Your task to perform on an android device: turn off notifications settings in the gmail app Image 0: 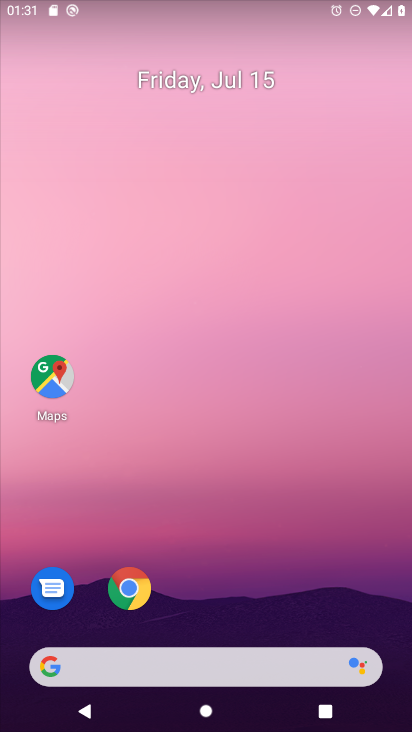
Step 0: drag from (388, 542) to (343, 157)
Your task to perform on an android device: turn off notifications settings in the gmail app Image 1: 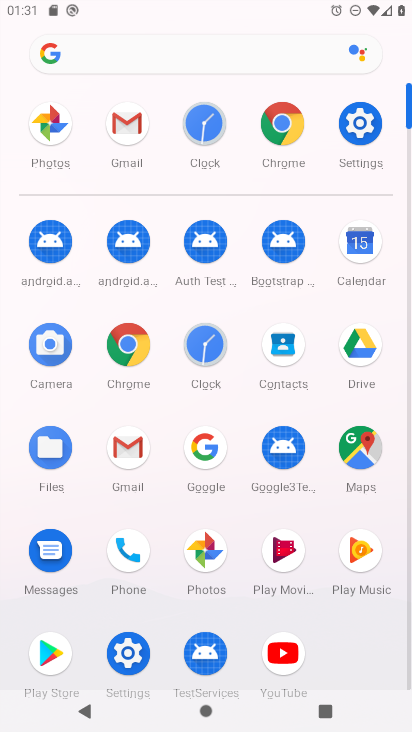
Step 1: click (130, 449)
Your task to perform on an android device: turn off notifications settings in the gmail app Image 2: 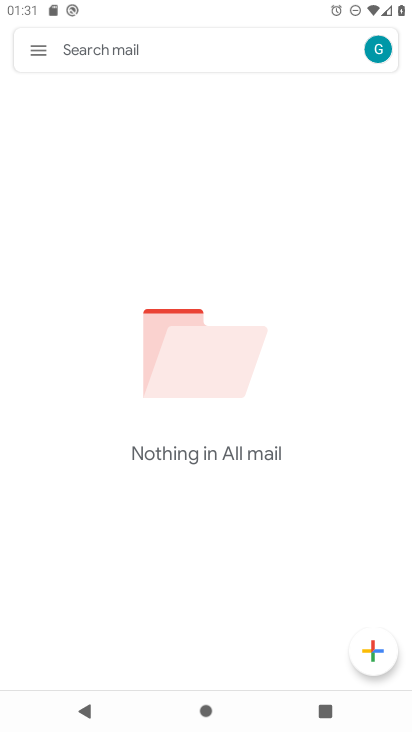
Step 2: click (35, 49)
Your task to perform on an android device: turn off notifications settings in the gmail app Image 3: 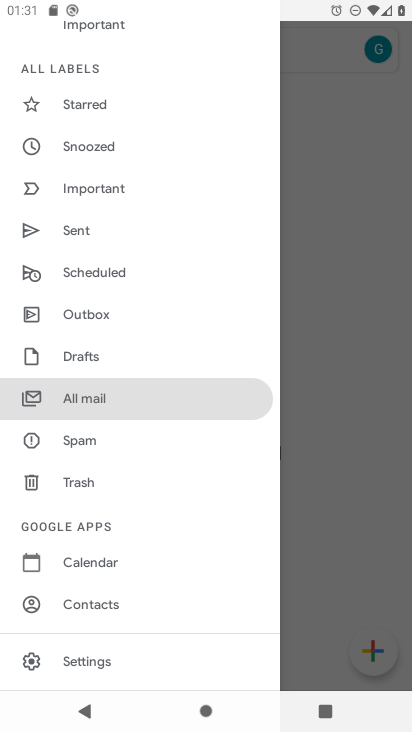
Step 3: drag from (207, 640) to (224, 203)
Your task to perform on an android device: turn off notifications settings in the gmail app Image 4: 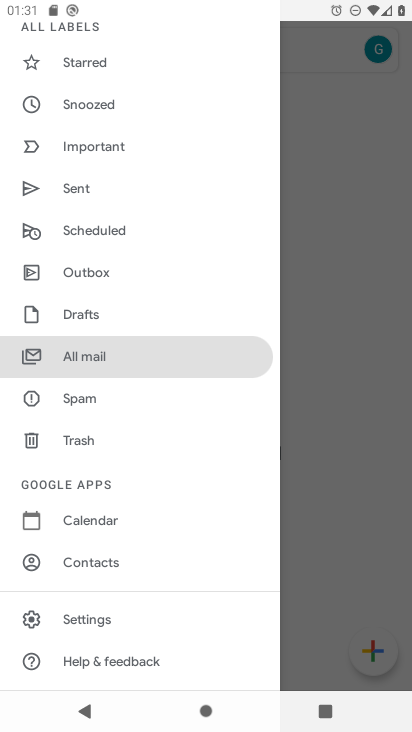
Step 4: click (96, 617)
Your task to perform on an android device: turn off notifications settings in the gmail app Image 5: 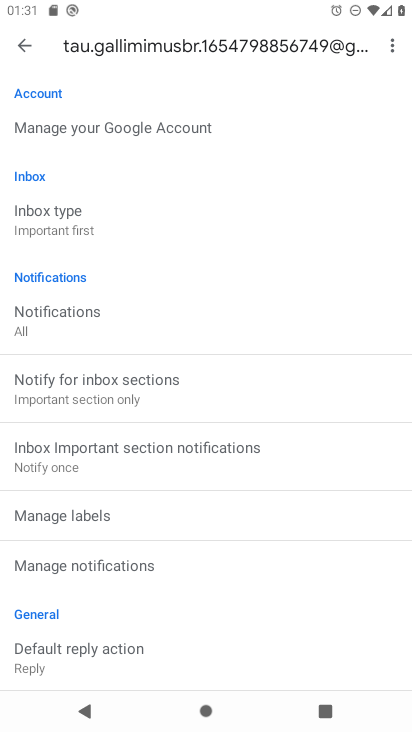
Step 5: click (247, 558)
Your task to perform on an android device: turn off notifications settings in the gmail app Image 6: 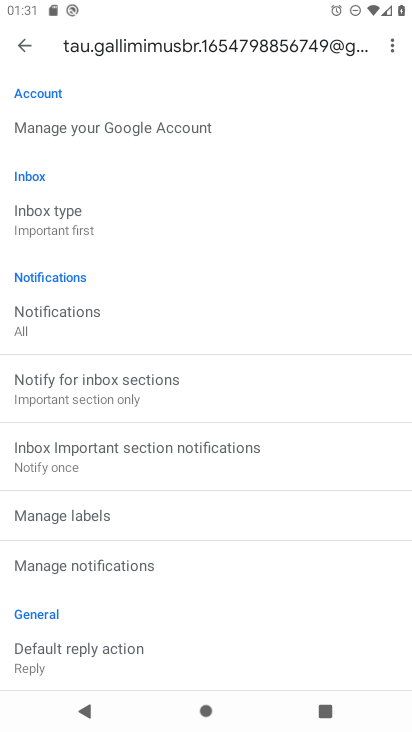
Step 6: drag from (247, 558) to (257, 327)
Your task to perform on an android device: turn off notifications settings in the gmail app Image 7: 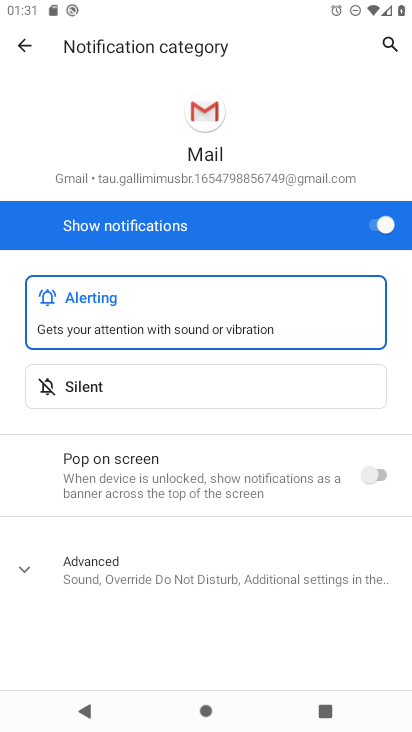
Step 7: click (369, 230)
Your task to perform on an android device: turn off notifications settings in the gmail app Image 8: 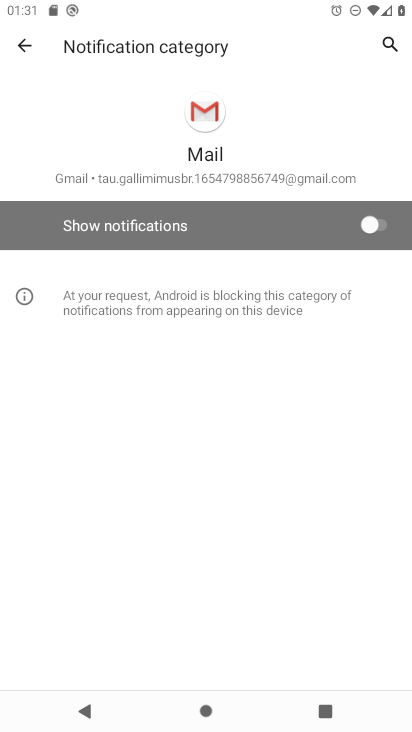
Step 8: task complete